Your task to perform on an android device: show emergency info Image 0: 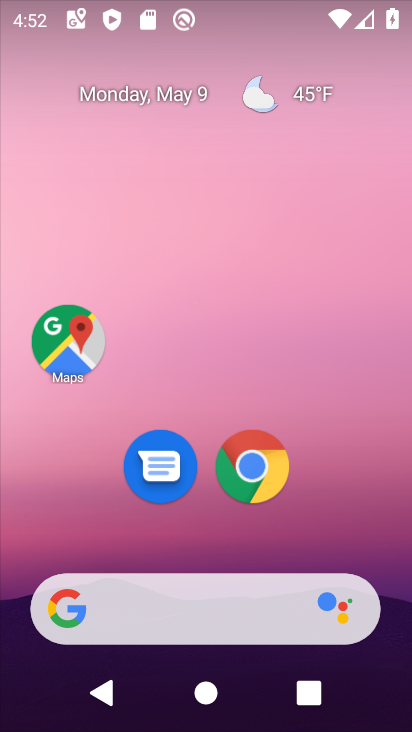
Step 0: drag from (334, 515) to (306, 19)
Your task to perform on an android device: show emergency info Image 1: 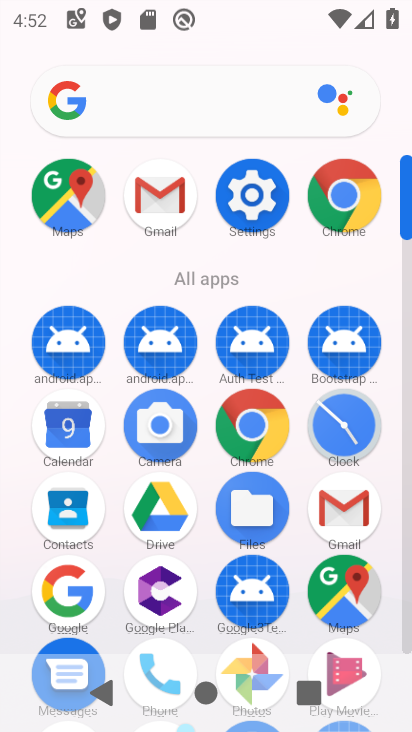
Step 1: drag from (4, 565) to (0, 245)
Your task to perform on an android device: show emergency info Image 2: 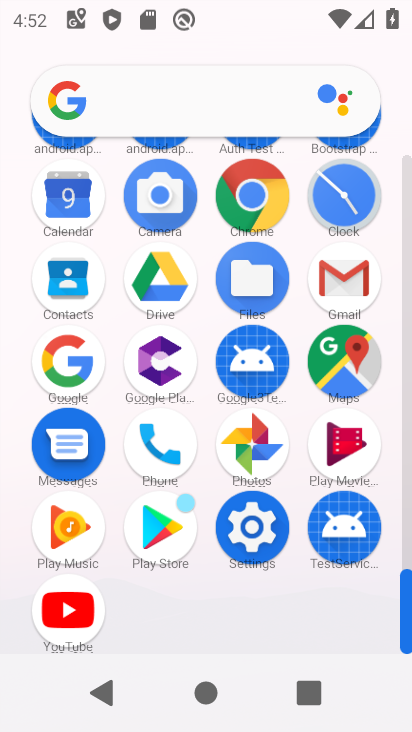
Step 2: drag from (2, 566) to (19, 256)
Your task to perform on an android device: show emergency info Image 3: 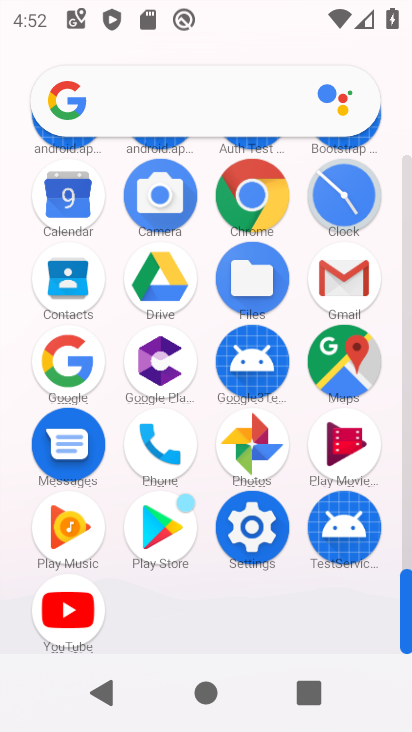
Step 3: click (253, 526)
Your task to perform on an android device: show emergency info Image 4: 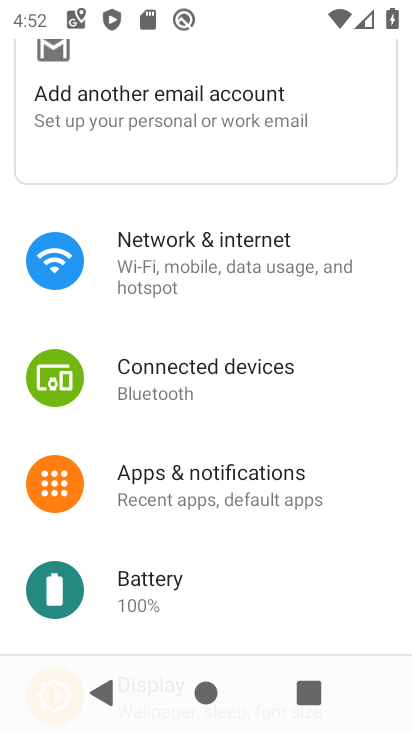
Step 4: drag from (281, 580) to (284, 199)
Your task to perform on an android device: show emergency info Image 5: 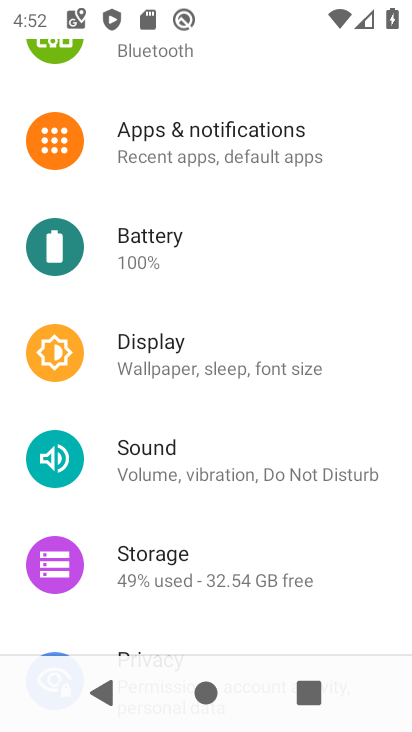
Step 5: drag from (268, 510) to (266, 202)
Your task to perform on an android device: show emergency info Image 6: 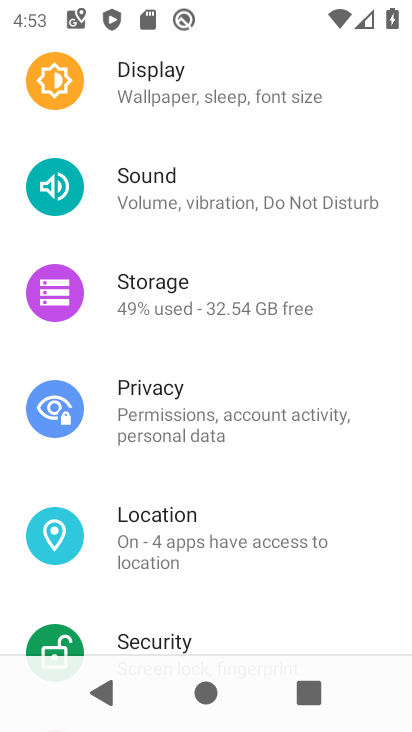
Step 6: drag from (231, 552) to (246, 108)
Your task to perform on an android device: show emergency info Image 7: 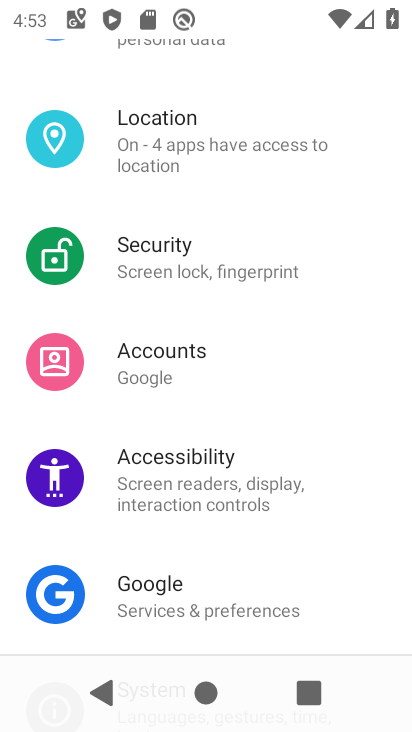
Step 7: drag from (205, 555) to (205, 156)
Your task to perform on an android device: show emergency info Image 8: 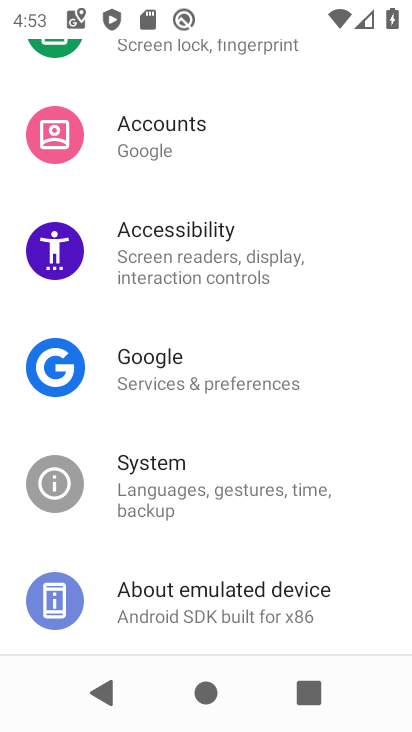
Step 8: click (242, 184)
Your task to perform on an android device: show emergency info Image 9: 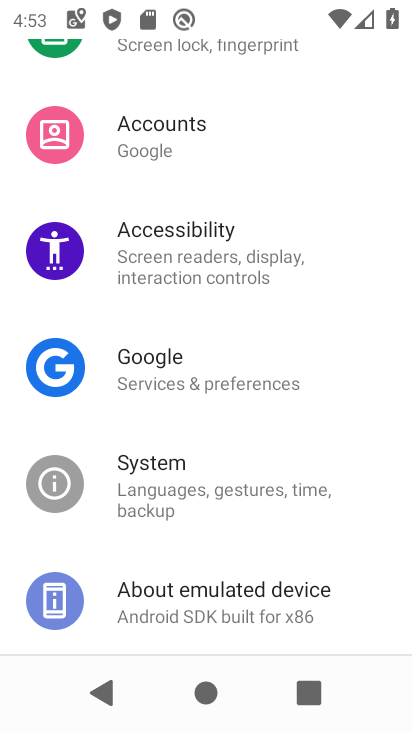
Step 9: drag from (261, 180) to (258, 618)
Your task to perform on an android device: show emergency info Image 10: 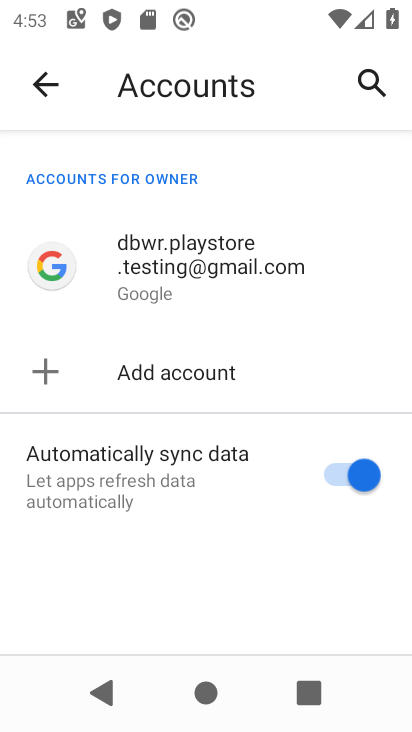
Step 10: click (39, 96)
Your task to perform on an android device: show emergency info Image 11: 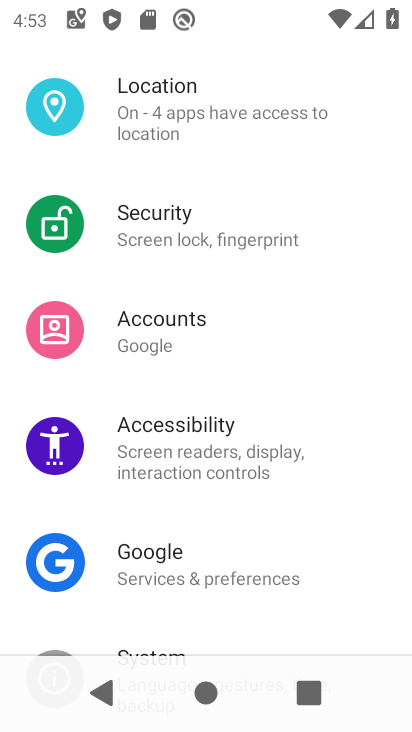
Step 11: drag from (302, 223) to (303, 564)
Your task to perform on an android device: show emergency info Image 12: 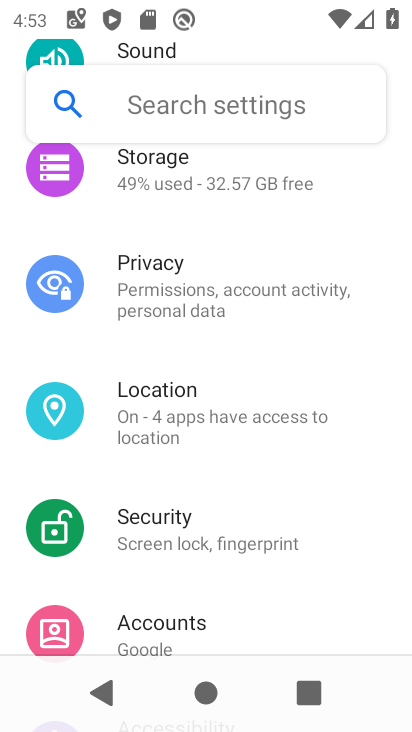
Step 12: drag from (272, 327) to (271, 586)
Your task to perform on an android device: show emergency info Image 13: 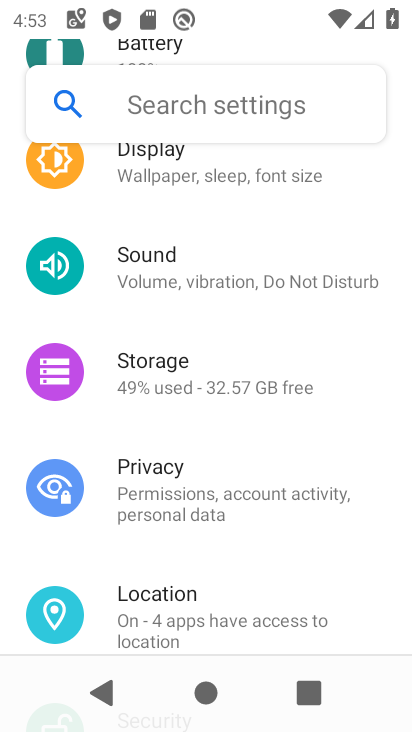
Step 13: drag from (279, 215) to (277, 587)
Your task to perform on an android device: show emergency info Image 14: 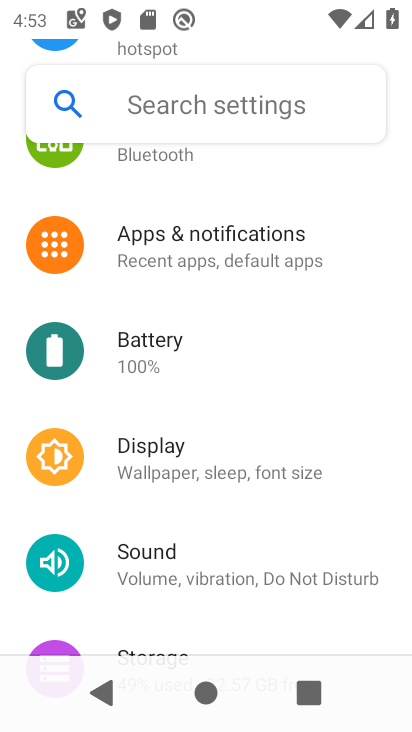
Step 14: drag from (267, 200) to (276, 592)
Your task to perform on an android device: show emergency info Image 15: 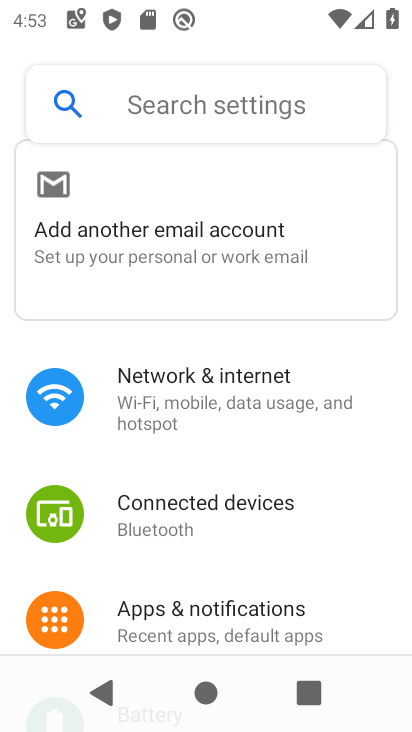
Step 15: drag from (289, 571) to (280, 238)
Your task to perform on an android device: show emergency info Image 16: 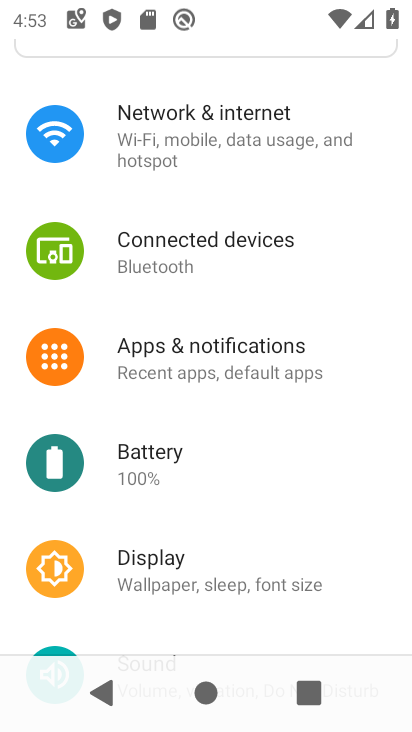
Step 16: drag from (295, 577) to (279, 150)
Your task to perform on an android device: show emergency info Image 17: 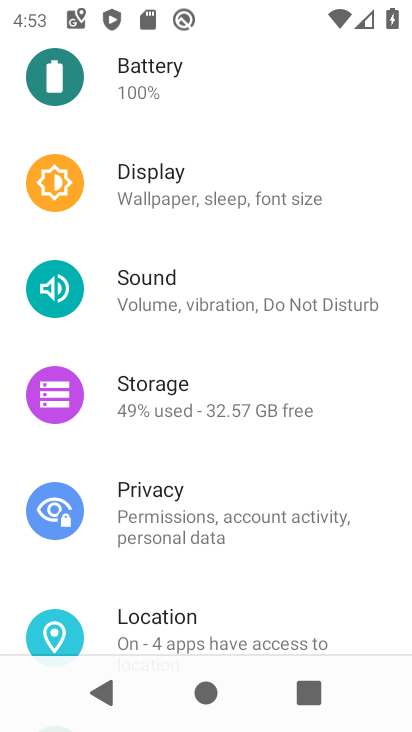
Step 17: drag from (259, 613) to (259, 158)
Your task to perform on an android device: show emergency info Image 18: 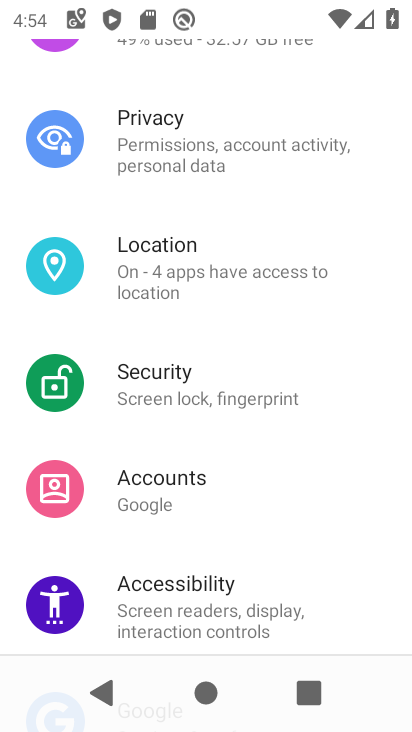
Step 18: drag from (257, 583) to (272, 236)
Your task to perform on an android device: show emergency info Image 19: 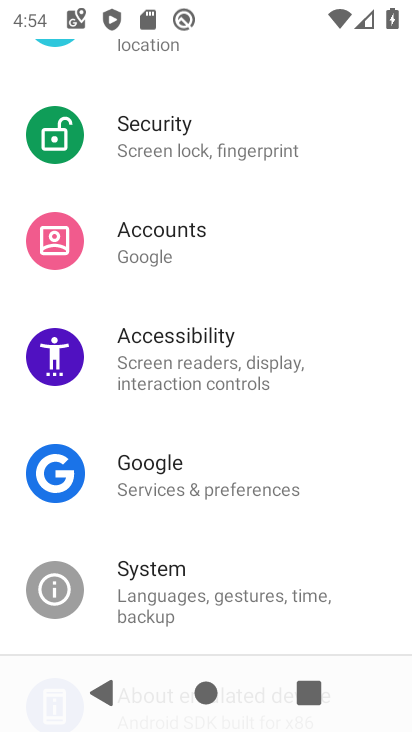
Step 19: drag from (229, 539) to (224, 193)
Your task to perform on an android device: show emergency info Image 20: 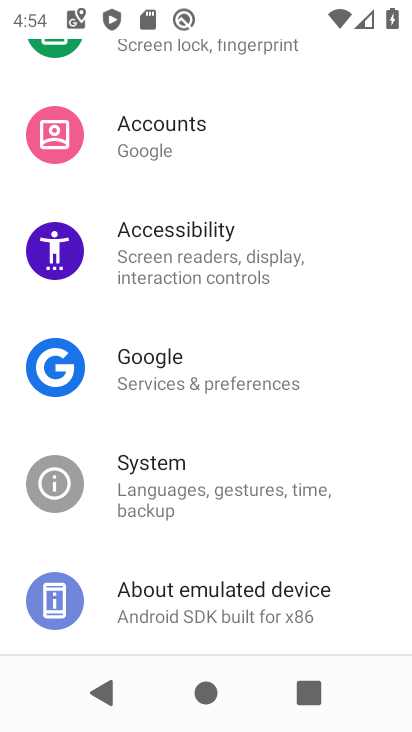
Step 20: click (187, 588)
Your task to perform on an android device: show emergency info Image 21: 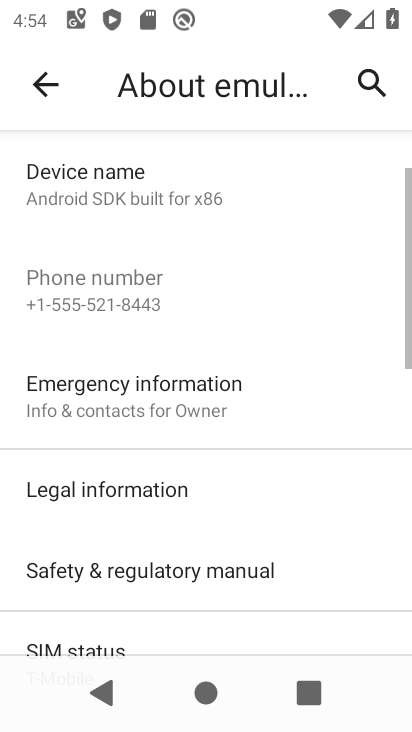
Step 21: drag from (308, 514) to (300, 144)
Your task to perform on an android device: show emergency info Image 22: 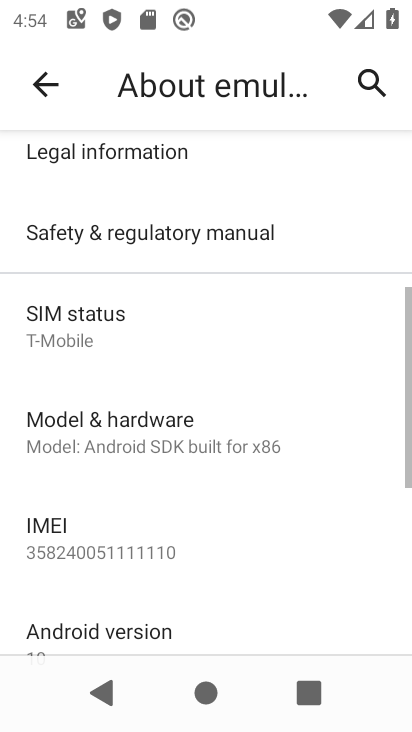
Step 22: drag from (243, 603) to (288, 235)
Your task to perform on an android device: show emergency info Image 23: 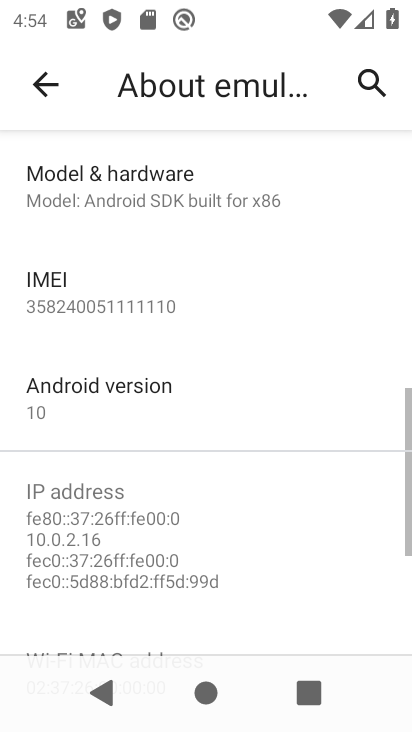
Step 23: drag from (291, 245) to (284, 128)
Your task to perform on an android device: show emergency info Image 24: 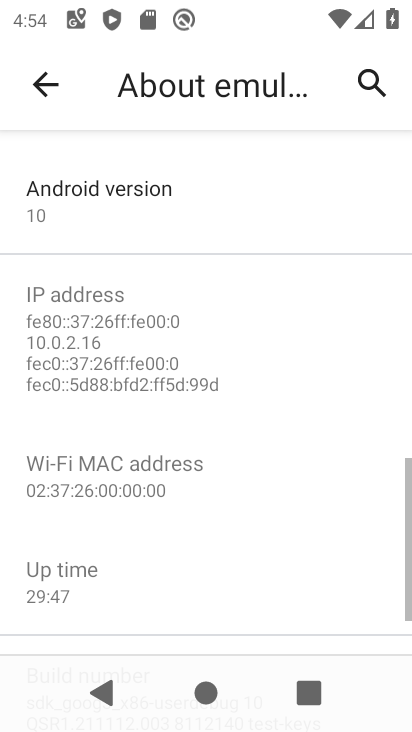
Step 24: drag from (236, 529) to (266, 184)
Your task to perform on an android device: show emergency info Image 25: 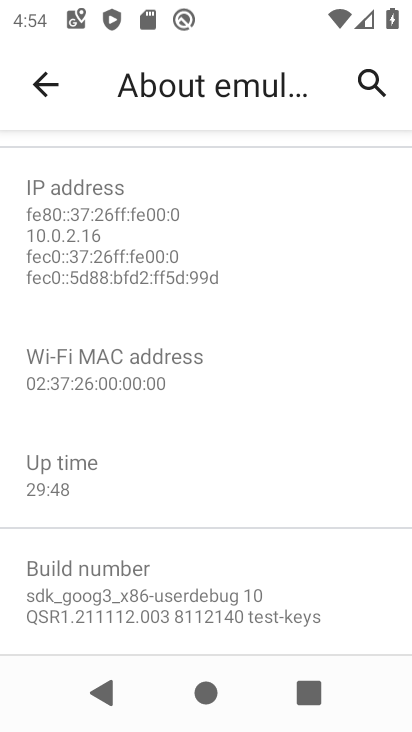
Step 25: drag from (268, 239) to (275, 621)
Your task to perform on an android device: show emergency info Image 26: 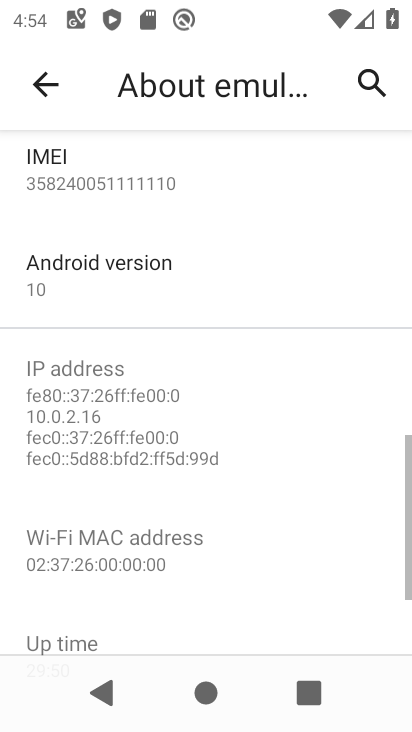
Step 26: drag from (270, 250) to (270, 629)
Your task to perform on an android device: show emergency info Image 27: 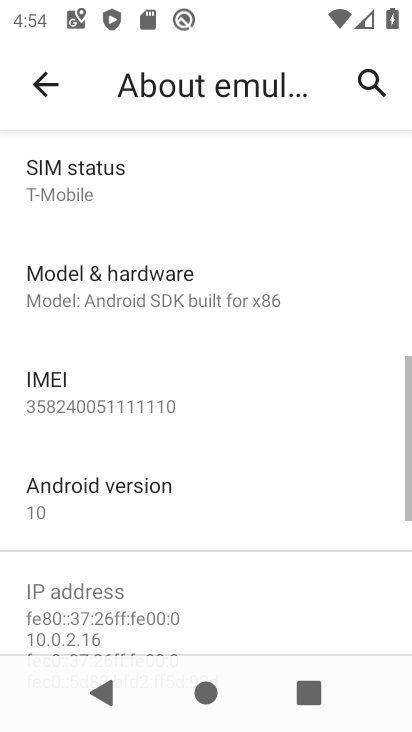
Step 27: drag from (270, 351) to (279, 621)
Your task to perform on an android device: show emergency info Image 28: 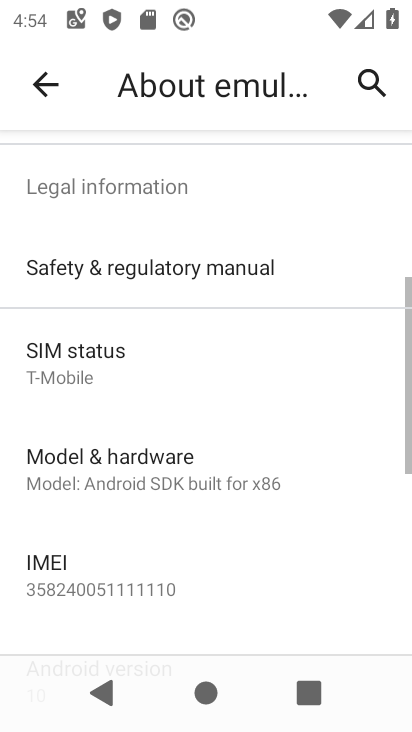
Step 28: drag from (247, 262) to (239, 615)
Your task to perform on an android device: show emergency info Image 29: 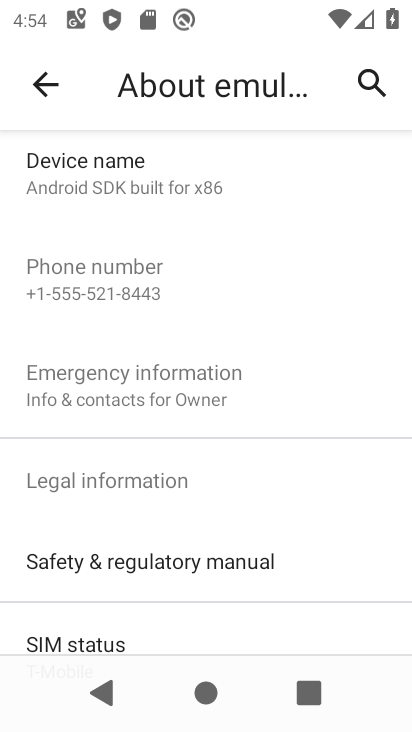
Step 29: drag from (232, 246) to (257, 615)
Your task to perform on an android device: show emergency info Image 30: 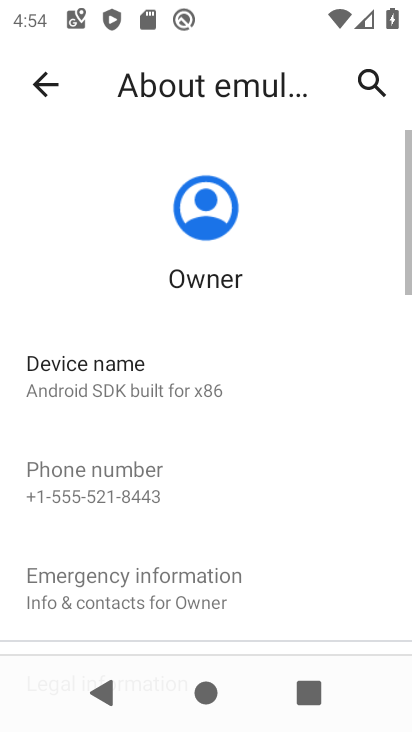
Step 30: drag from (262, 289) to (273, 572)
Your task to perform on an android device: show emergency info Image 31: 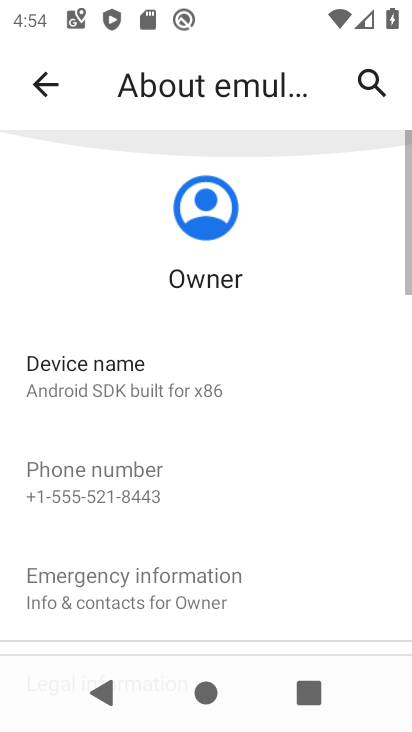
Step 31: drag from (271, 560) to (271, 150)
Your task to perform on an android device: show emergency info Image 32: 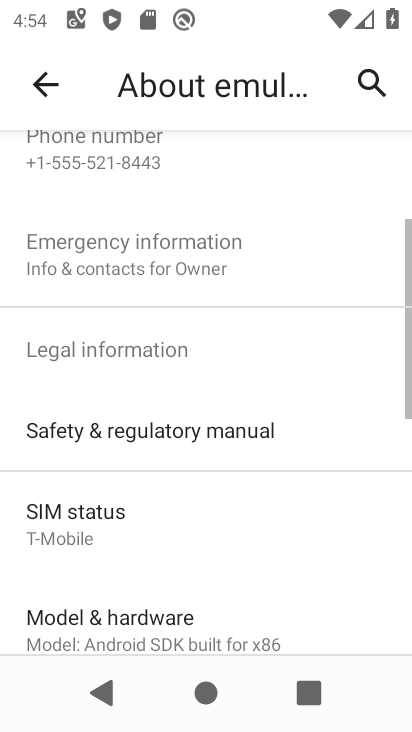
Step 32: drag from (221, 553) to (230, 197)
Your task to perform on an android device: show emergency info Image 33: 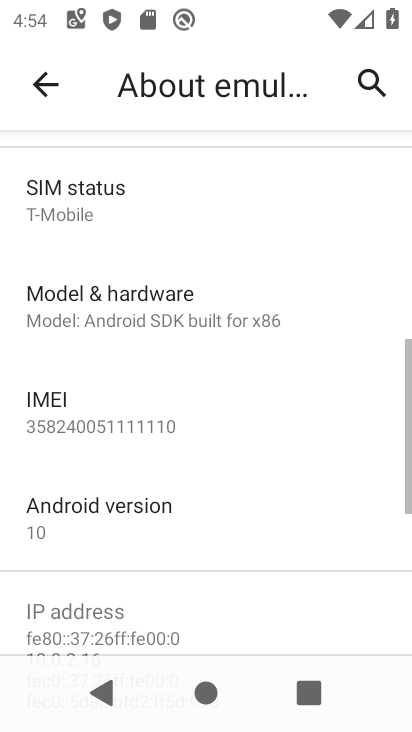
Step 33: click (152, 521)
Your task to perform on an android device: show emergency info Image 34: 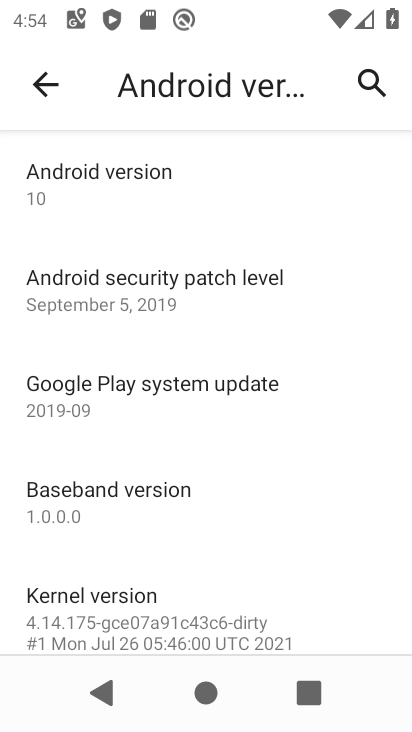
Step 34: click (49, 64)
Your task to perform on an android device: show emergency info Image 35: 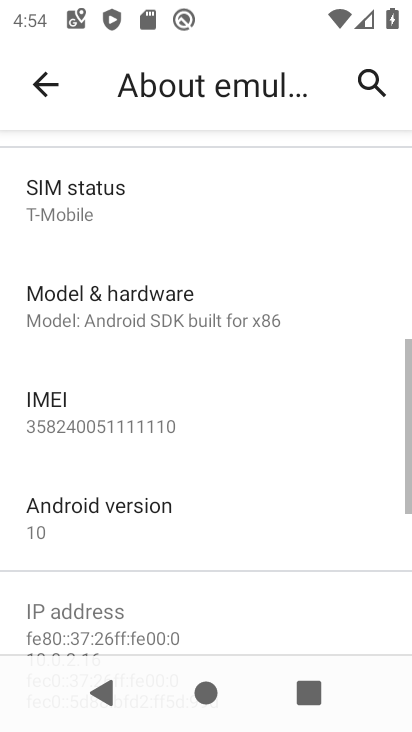
Step 35: drag from (202, 316) to (235, 565)
Your task to perform on an android device: show emergency info Image 36: 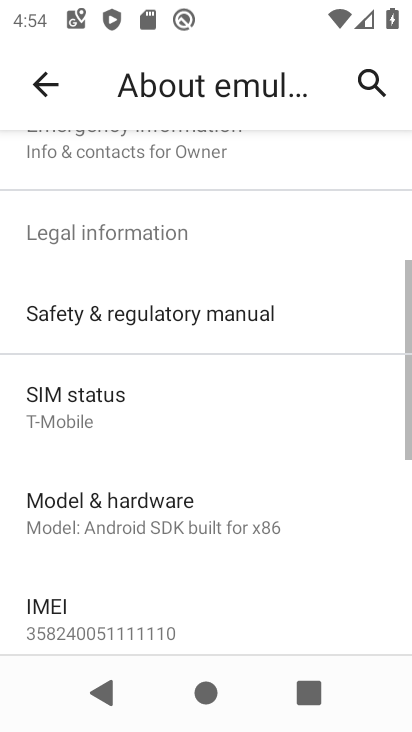
Step 36: drag from (251, 530) to (247, 171)
Your task to perform on an android device: show emergency info Image 37: 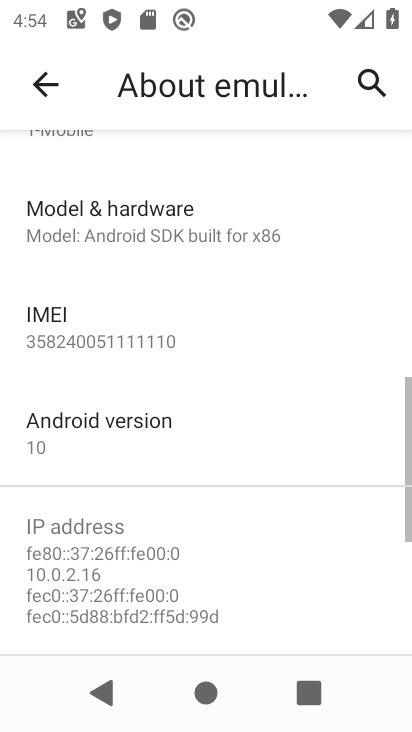
Step 37: drag from (240, 544) to (277, 198)
Your task to perform on an android device: show emergency info Image 38: 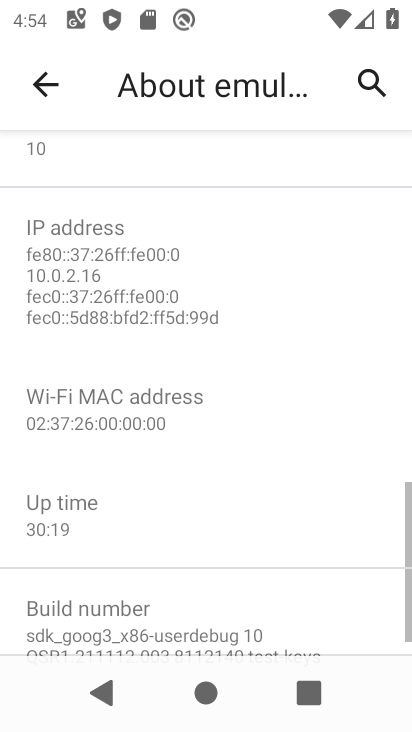
Step 38: drag from (279, 202) to (275, 601)
Your task to perform on an android device: show emergency info Image 39: 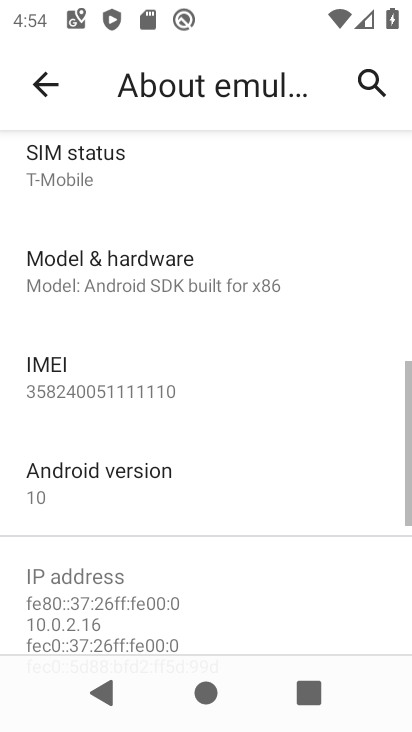
Step 39: drag from (274, 256) to (280, 553)
Your task to perform on an android device: show emergency info Image 40: 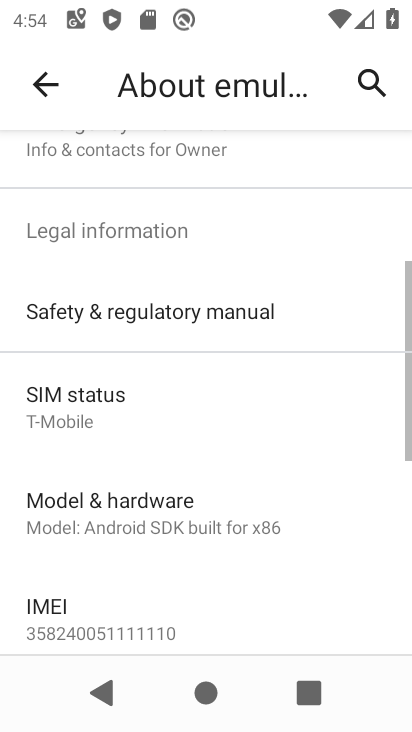
Step 40: drag from (244, 285) to (264, 576)
Your task to perform on an android device: show emergency info Image 41: 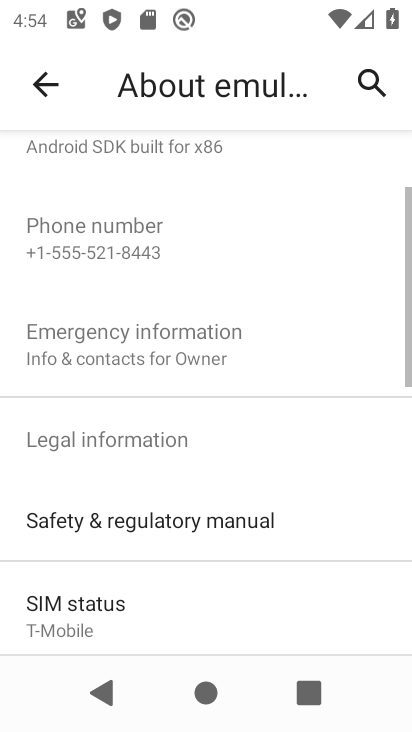
Step 41: drag from (250, 287) to (259, 580)
Your task to perform on an android device: show emergency info Image 42: 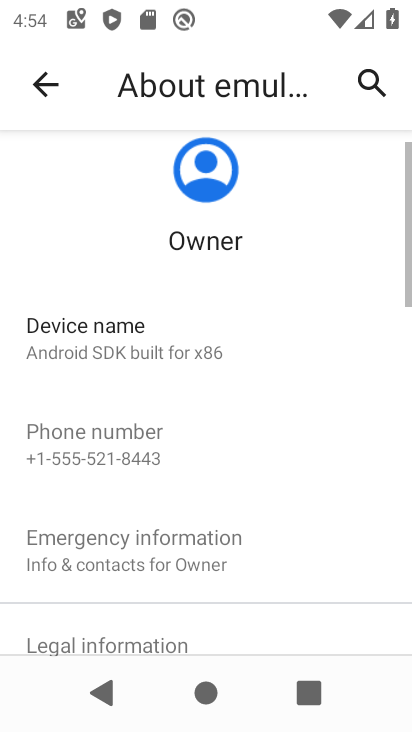
Step 42: click (58, 85)
Your task to perform on an android device: show emergency info Image 43: 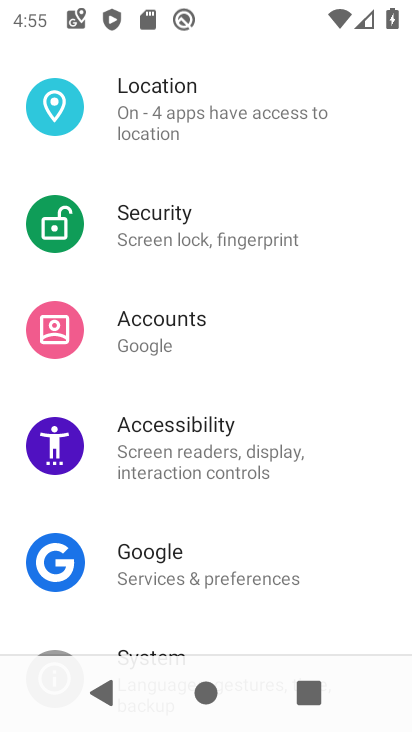
Step 43: drag from (266, 528) to (248, 176)
Your task to perform on an android device: show emergency info Image 44: 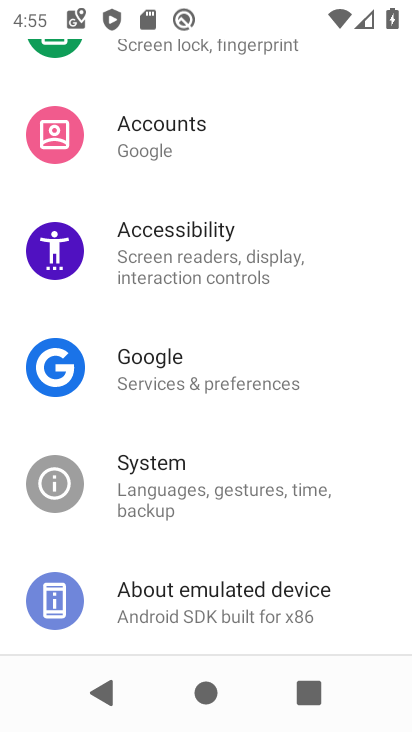
Step 44: drag from (267, 518) to (270, 152)
Your task to perform on an android device: show emergency info Image 45: 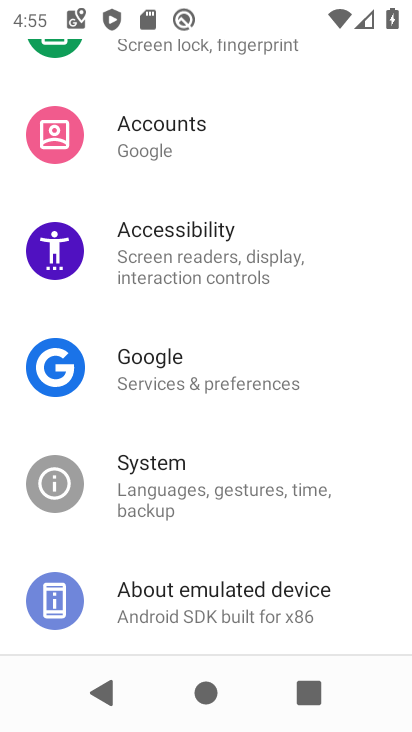
Step 45: drag from (260, 278) to (260, 545)
Your task to perform on an android device: show emergency info Image 46: 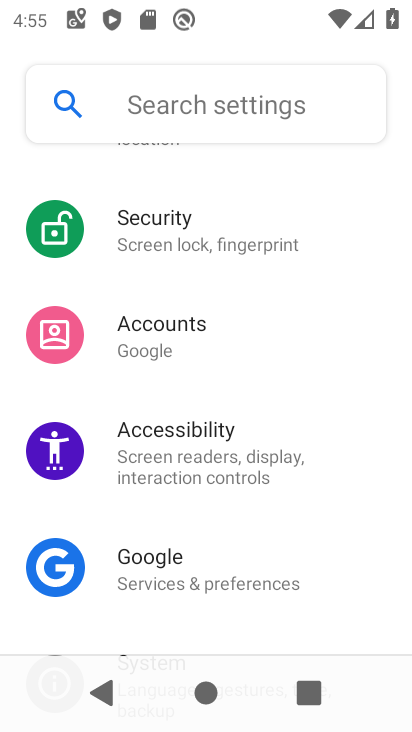
Step 46: drag from (277, 325) to (277, 596)
Your task to perform on an android device: show emergency info Image 47: 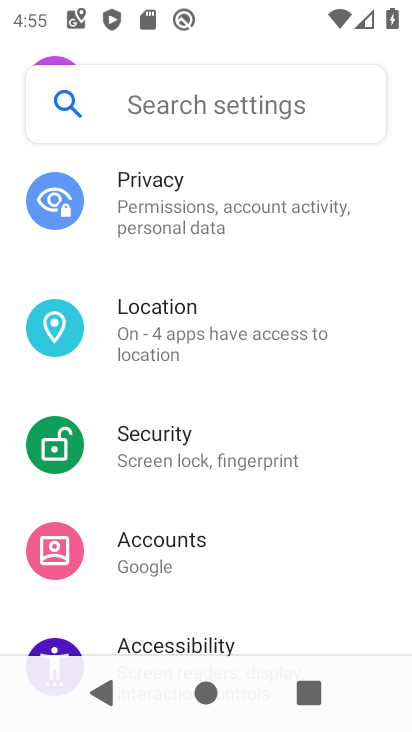
Step 47: drag from (284, 253) to (286, 545)
Your task to perform on an android device: show emergency info Image 48: 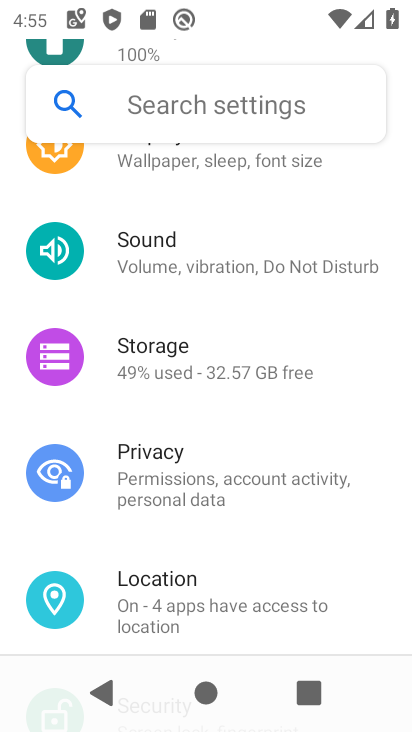
Step 48: drag from (287, 596) to (254, 85)
Your task to perform on an android device: show emergency info Image 49: 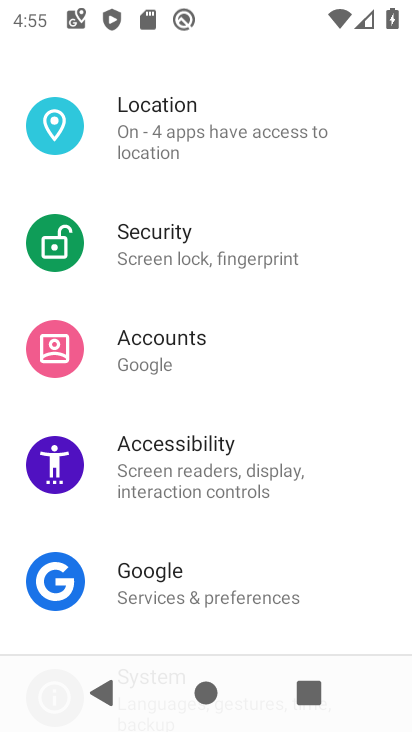
Step 49: drag from (244, 610) to (257, 139)
Your task to perform on an android device: show emergency info Image 50: 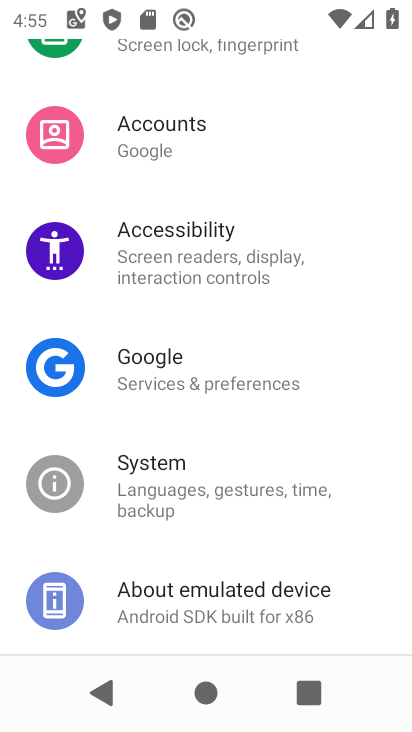
Step 50: click (234, 588)
Your task to perform on an android device: show emergency info Image 51: 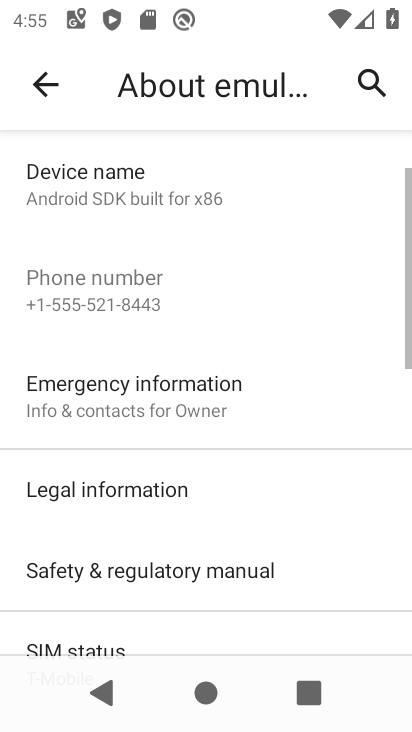
Step 51: click (210, 403)
Your task to perform on an android device: show emergency info Image 52: 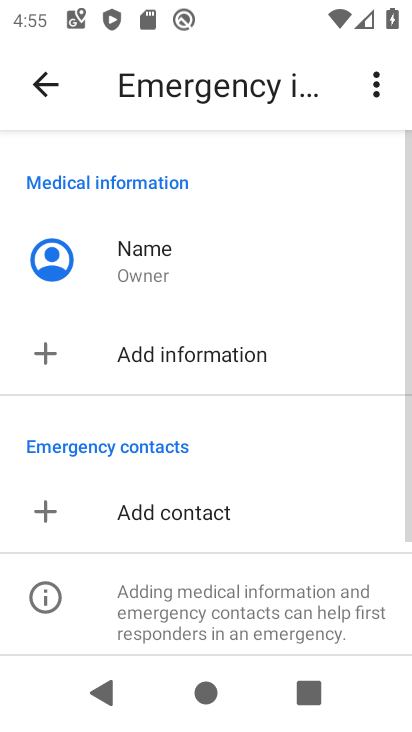
Step 52: task complete